Your task to perform on an android device: turn off location history Image 0: 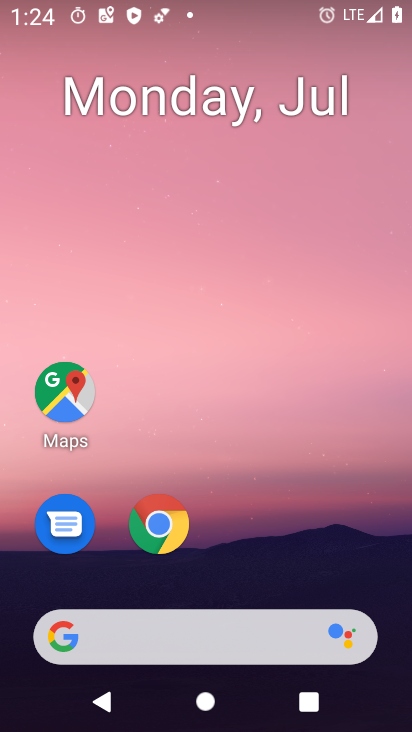
Step 0: press home button
Your task to perform on an android device: turn off location history Image 1: 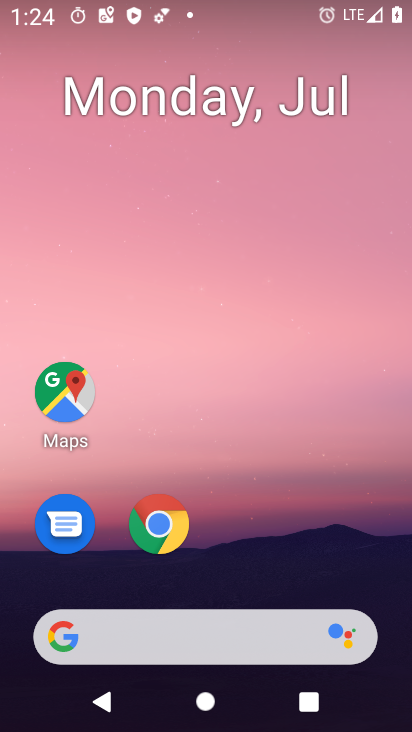
Step 1: drag from (309, 541) to (275, 129)
Your task to perform on an android device: turn off location history Image 2: 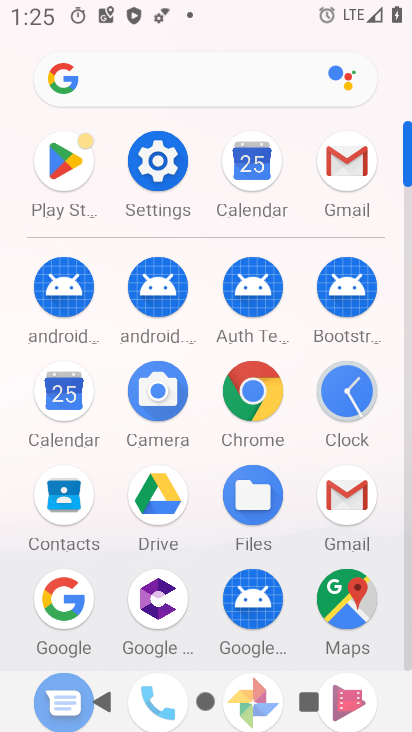
Step 2: click (171, 158)
Your task to perform on an android device: turn off location history Image 3: 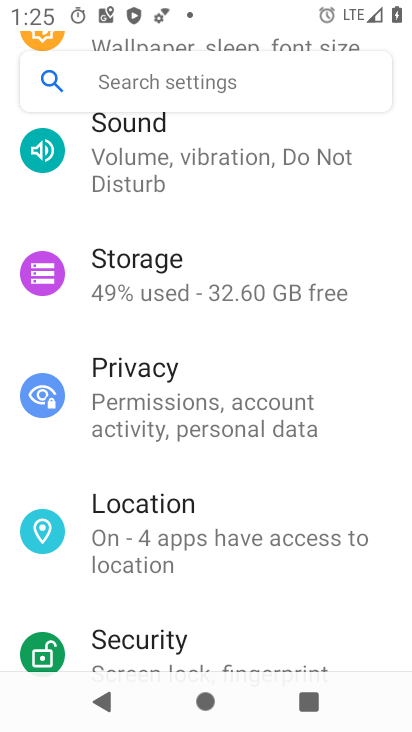
Step 3: click (174, 533)
Your task to perform on an android device: turn off location history Image 4: 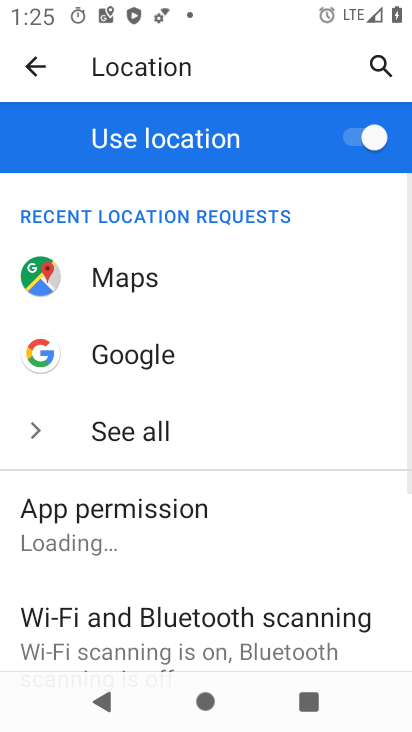
Step 4: drag from (261, 549) to (292, 165)
Your task to perform on an android device: turn off location history Image 5: 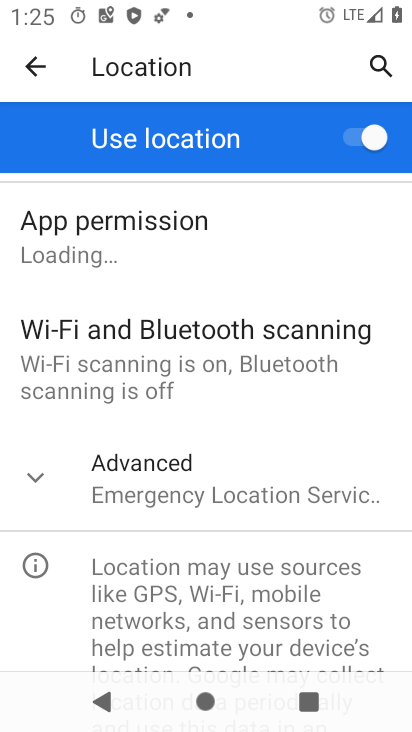
Step 5: click (31, 480)
Your task to perform on an android device: turn off location history Image 6: 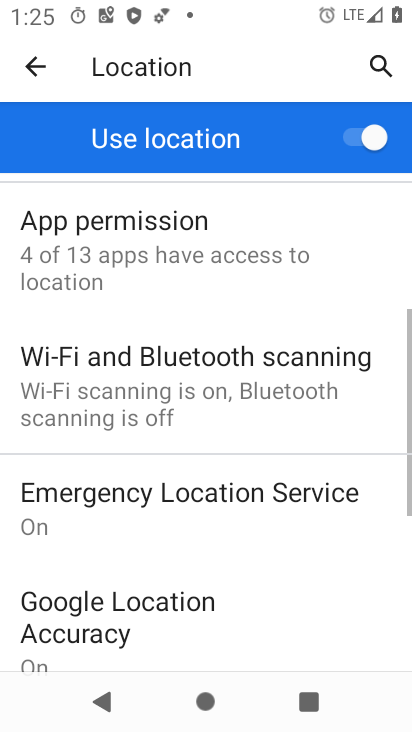
Step 6: task complete